Your task to perform on an android device: turn on translation in the chrome app Image 0: 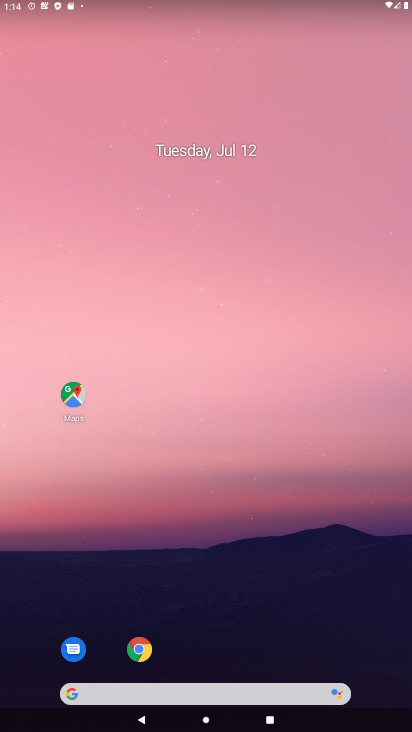
Step 0: drag from (377, 670) to (294, 17)
Your task to perform on an android device: turn on translation in the chrome app Image 1: 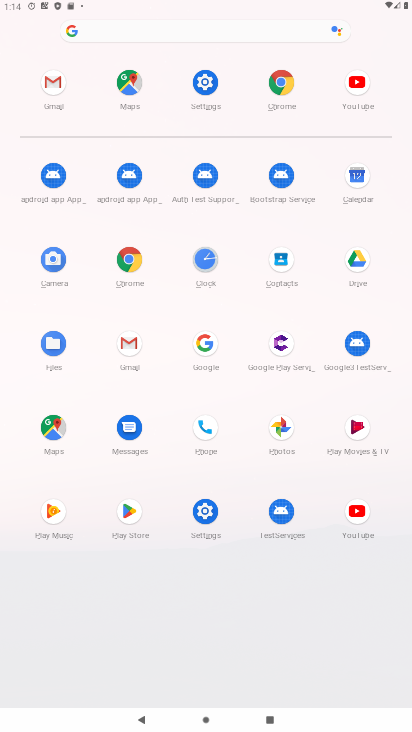
Step 1: click (269, 78)
Your task to perform on an android device: turn on translation in the chrome app Image 2: 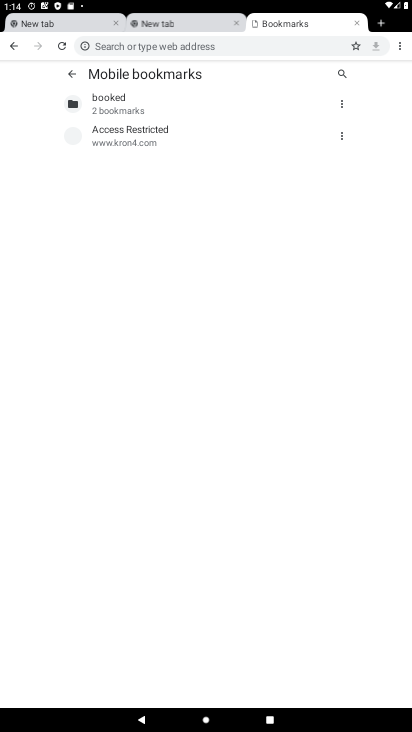
Step 2: click (401, 44)
Your task to perform on an android device: turn on translation in the chrome app Image 3: 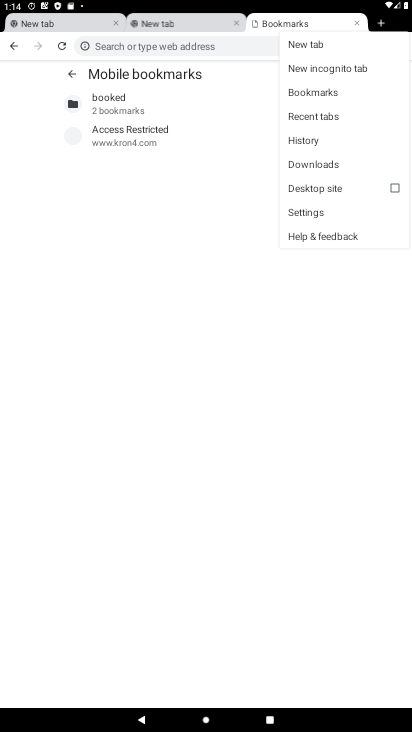
Step 3: click (310, 212)
Your task to perform on an android device: turn on translation in the chrome app Image 4: 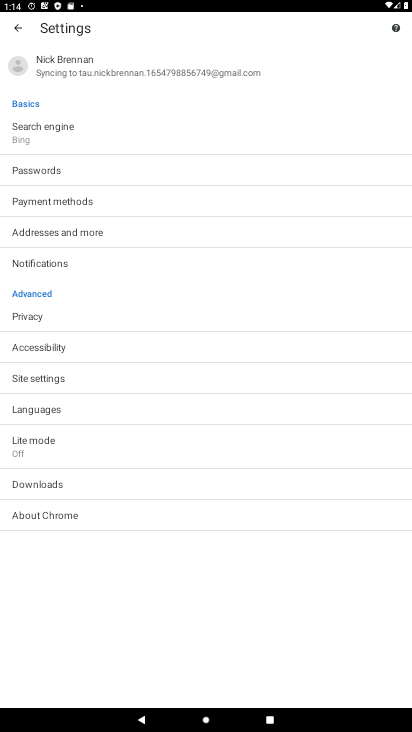
Step 4: click (78, 414)
Your task to perform on an android device: turn on translation in the chrome app Image 5: 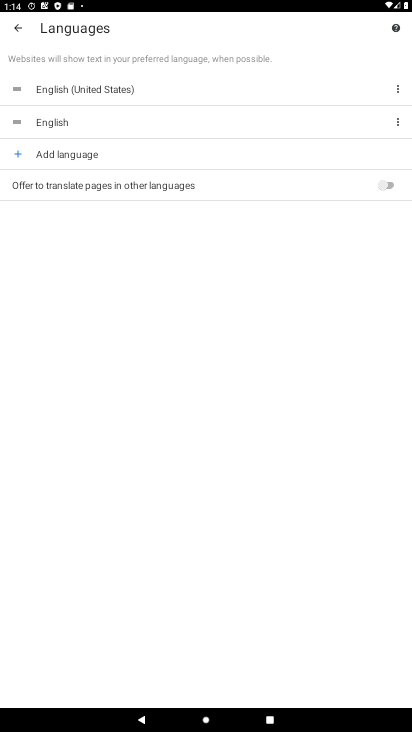
Step 5: click (385, 175)
Your task to perform on an android device: turn on translation in the chrome app Image 6: 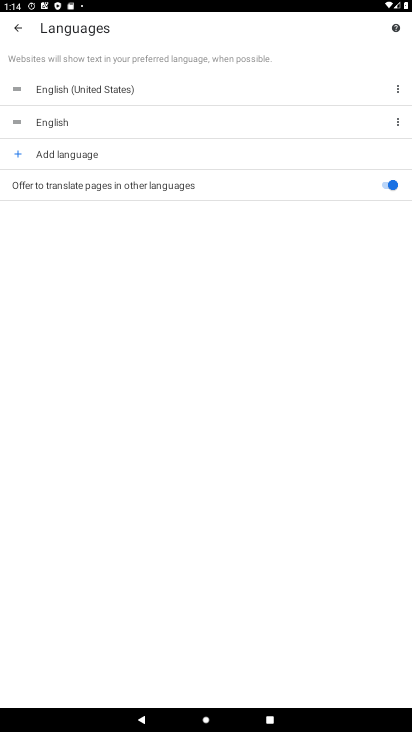
Step 6: task complete